Your task to perform on an android device: What is the recent news? Image 0: 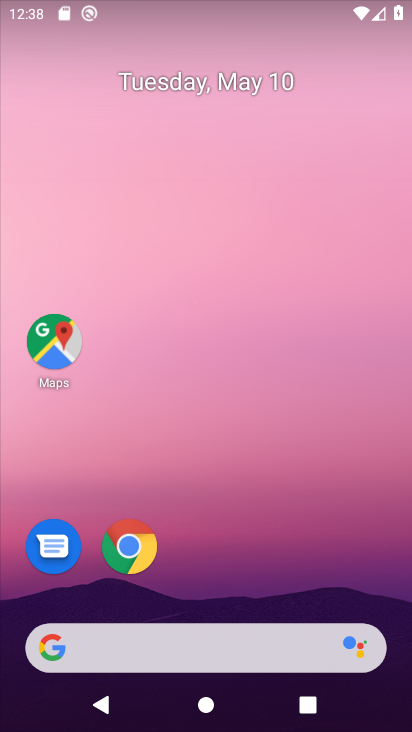
Step 0: click (149, 558)
Your task to perform on an android device: What is the recent news? Image 1: 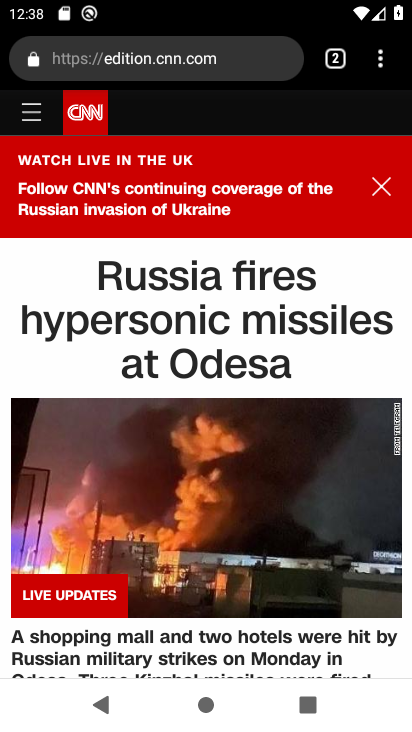
Step 1: click (156, 51)
Your task to perform on an android device: What is the recent news? Image 2: 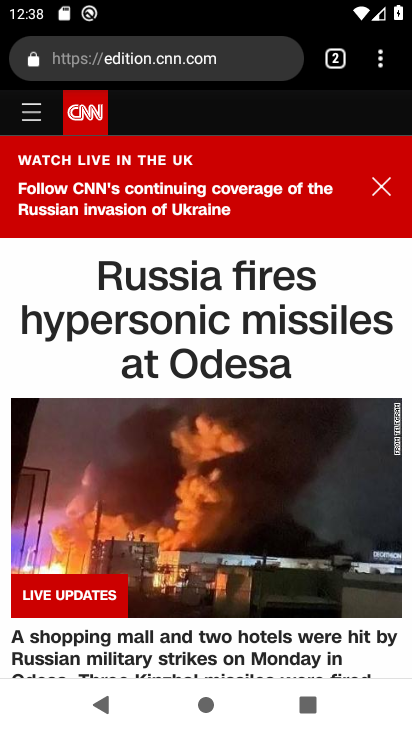
Step 2: click (156, 51)
Your task to perform on an android device: What is the recent news? Image 3: 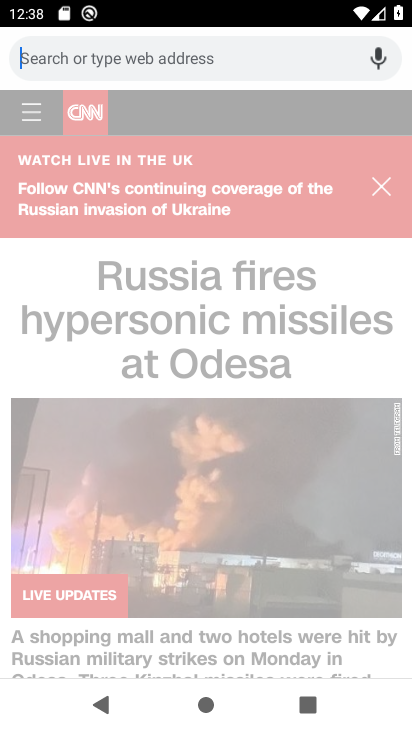
Step 3: click (156, 51)
Your task to perform on an android device: What is the recent news? Image 4: 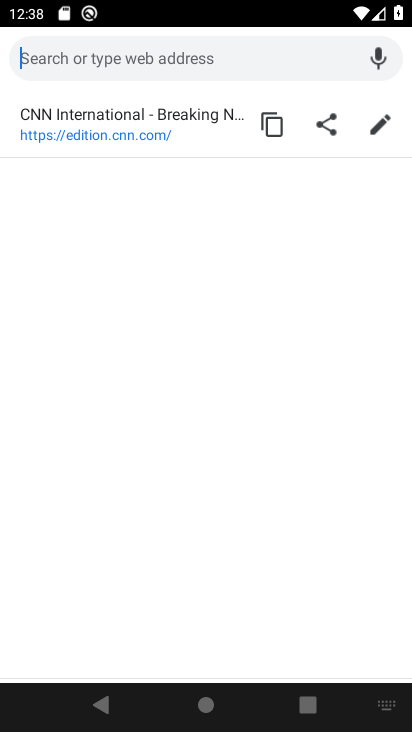
Step 4: click (156, 51)
Your task to perform on an android device: What is the recent news? Image 5: 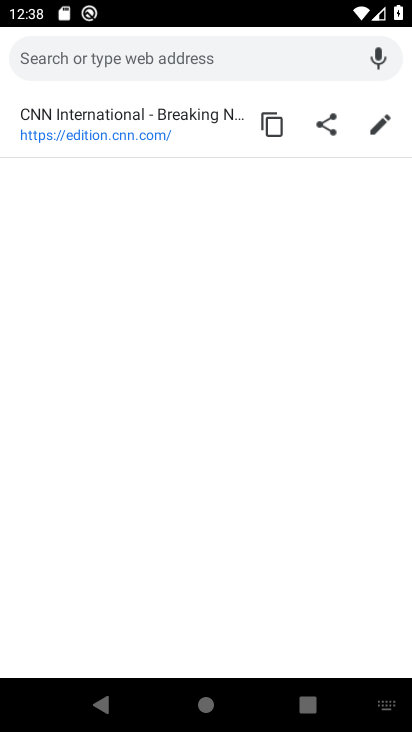
Step 5: click (156, 51)
Your task to perform on an android device: What is the recent news? Image 6: 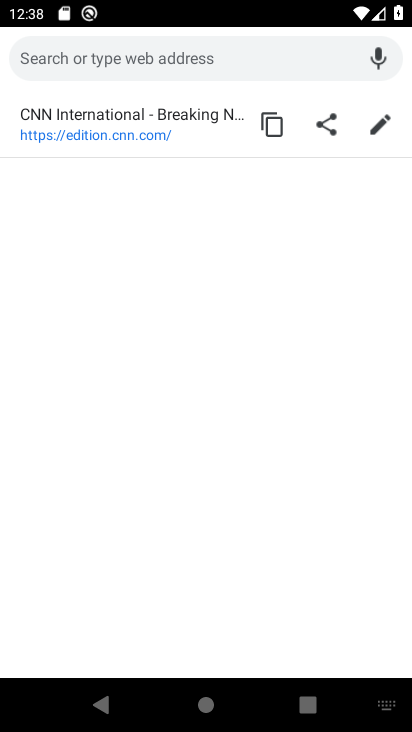
Step 6: type "What is the recent news?"
Your task to perform on an android device: What is the recent news? Image 7: 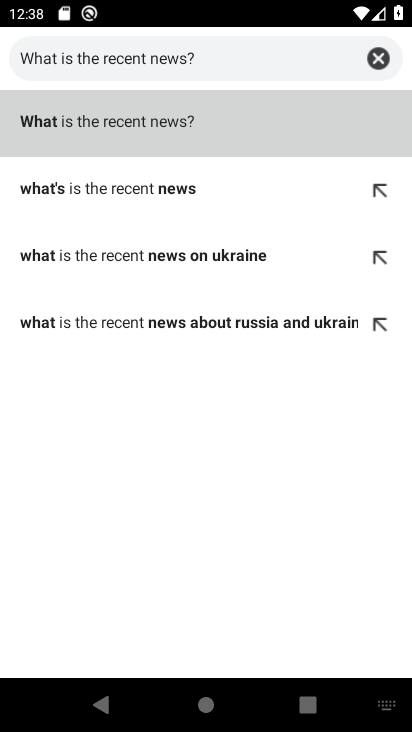
Step 7: click (179, 108)
Your task to perform on an android device: What is the recent news? Image 8: 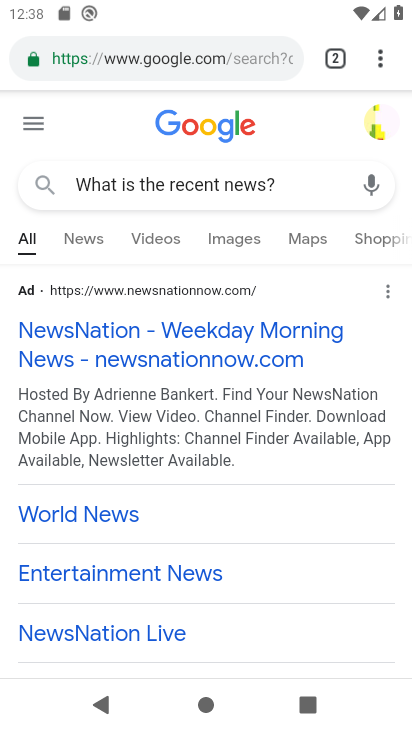
Step 8: task complete